Your task to perform on an android device: Play the last video I watched on Youtube Image 0: 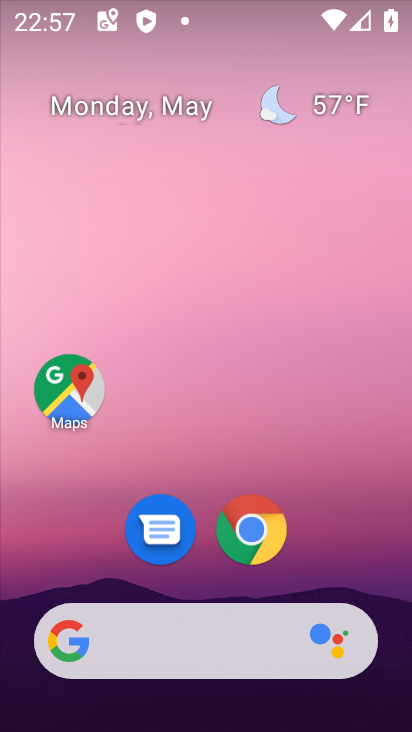
Step 0: drag from (242, 728) to (242, 612)
Your task to perform on an android device: Play the last video I watched on Youtube Image 1: 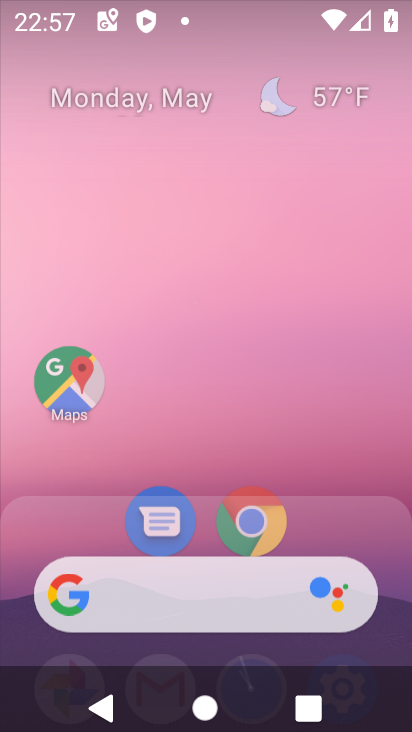
Step 1: click (242, 137)
Your task to perform on an android device: Play the last video I watched on Youtube Image 2: 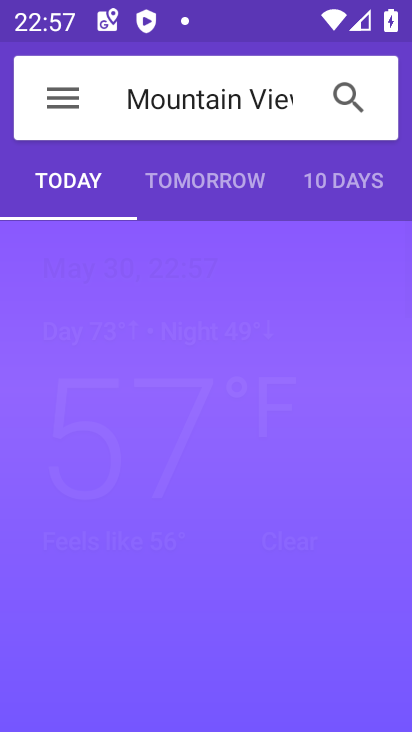
Step 2: press home button
Your task to perform on an android device: Play the last video I watched on Youtube Image 3: 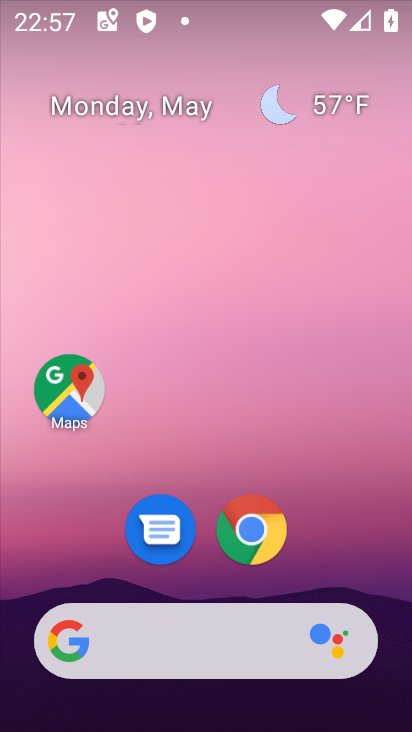
Step 3: drag from (212, 721) to (215, 582)
Your task to perform on an android device: Play the last video I watched on Youtube Image 4: 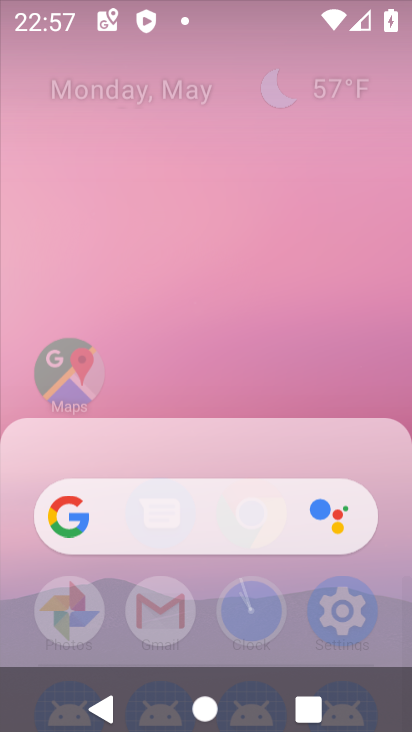
Step 4: click (215, 129)
Your task to perform on an android device: Play the last video I watched on Youtube Image 5: 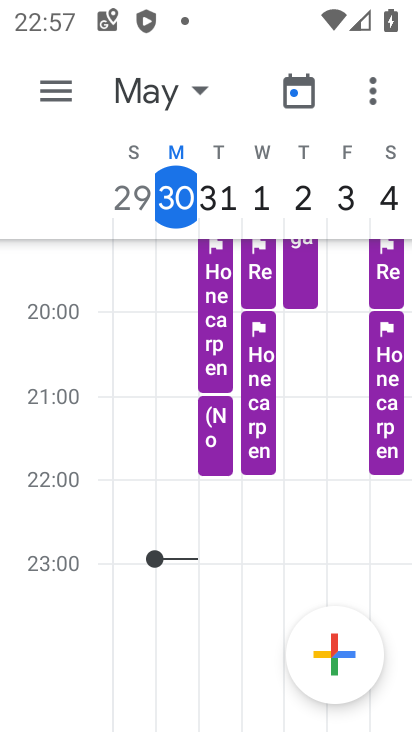
Step 5: press home button
Your task to perform on an android device: Play the last video I watched on Youtube Image 6: 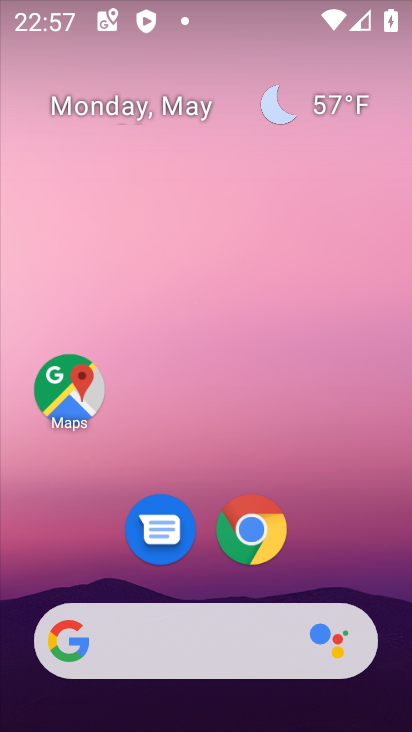
Step 6: drag from (265, 717) to (265, 494)
Your task to perform on an android device: Play the last video I watched on Youtube Image 7: 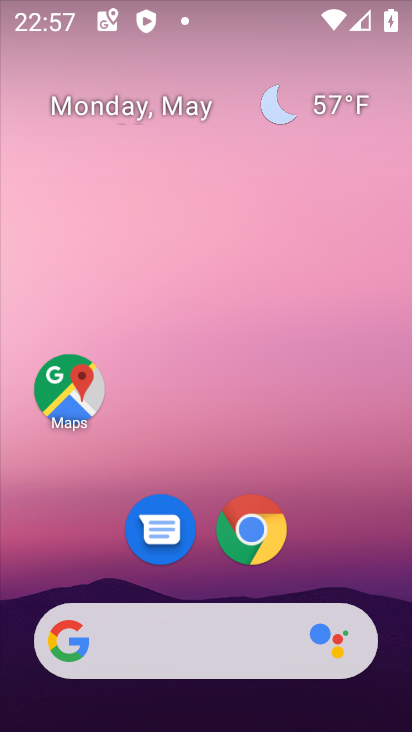
Step 7: click (265, 94)
Your task to perform on an android device: Play the last video I watched on Youtube Image 8: 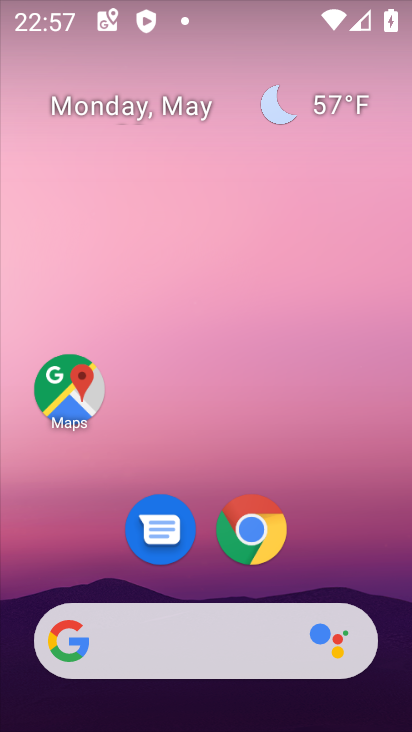
Step 8: drag from (228, 717) to (236, 594)
Your task to perform on an android device: Play the last video I watched on Youtube Image 9: 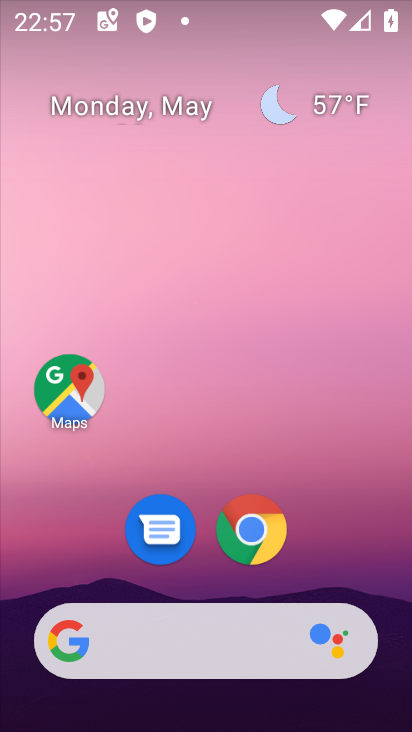
Step 9: drag from (241, 725) to (241, 57)
Your task to perform on an android device: Play the last video I watched on Youtube Image 10: 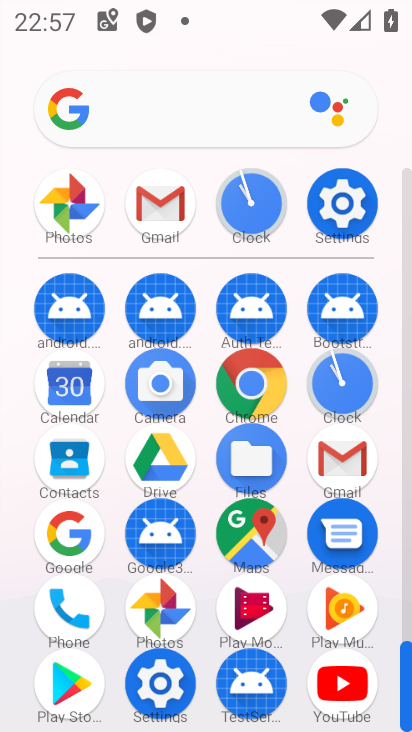
Step 10: click (338, 679)
Your task to perform on an android device: Play the last video I watched on Youtube Image 11: 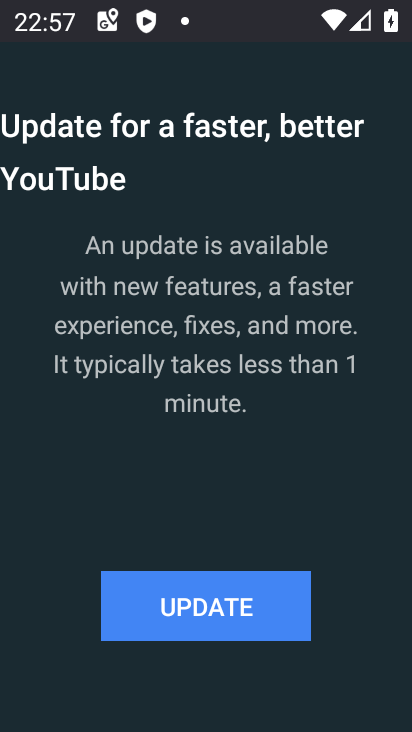
Step 11: task complete